Your task to perform on an android device: Search for razer nari on target, select the first entry, and add it to the cart. Image 0: 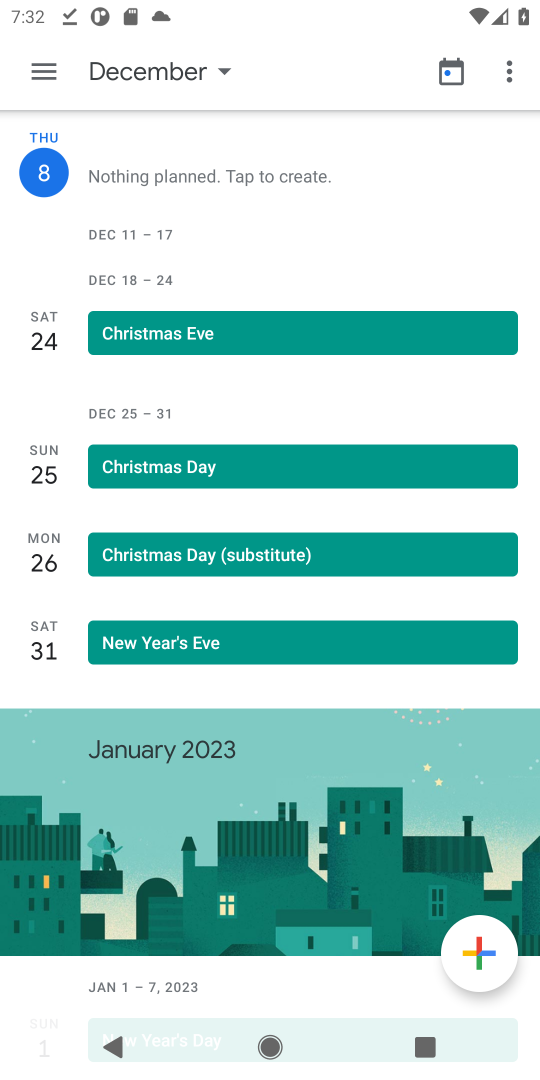
Step 0: press home button
Your task to perform on an android device: Search for razer nari on target, select the first entry, and add it to the cart. Image 1: 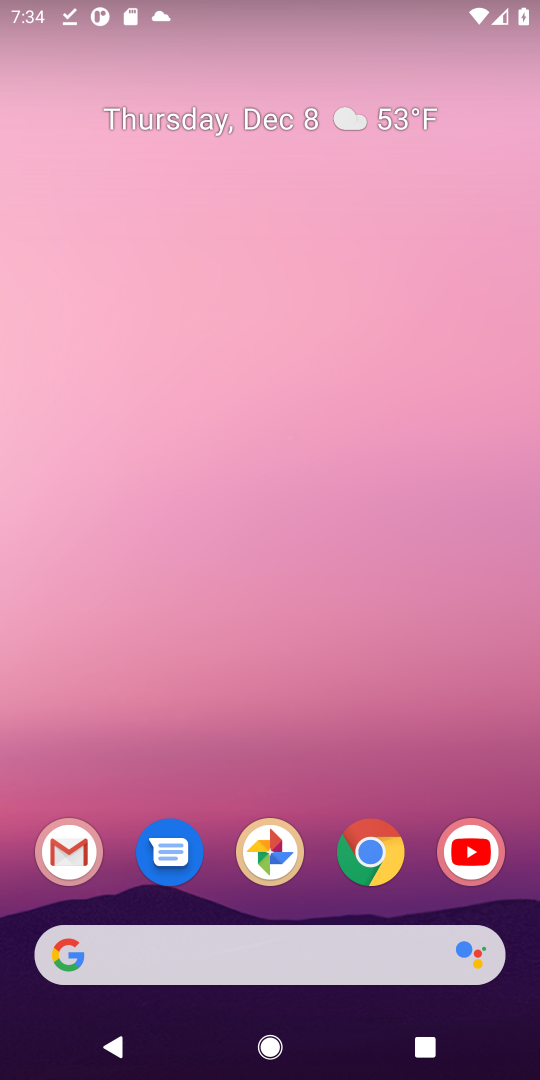
Step 1: click (295, 969)
Your task to perform on an android device: Search for razer nari on target, select the first entry, and add it to the cart. Image 2: 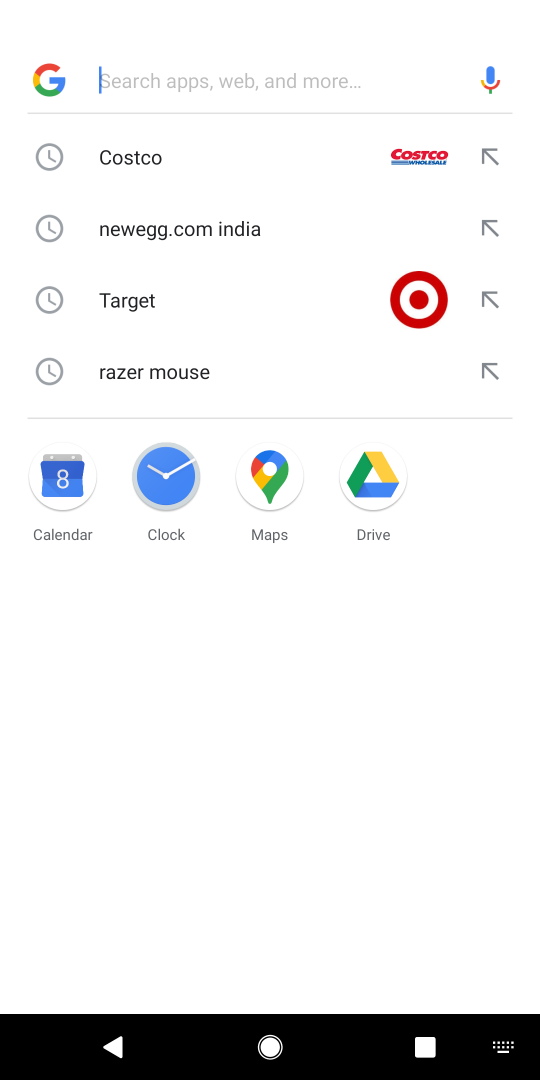
Step 2: type "target"
Your task to perform on an android device: Search for razer nari on target, select the first entry, and add it to the cart. Image 3: 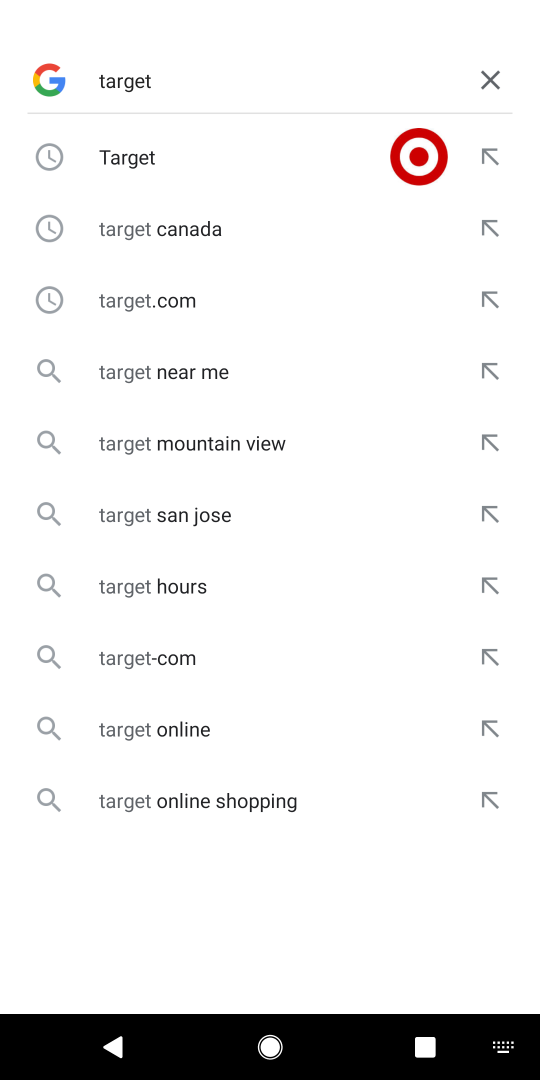
Step 3: click (168, 143)
Your task to perform on an android device: Search for razer nari on target, select the first entry, and add it to the cart. Image 4: 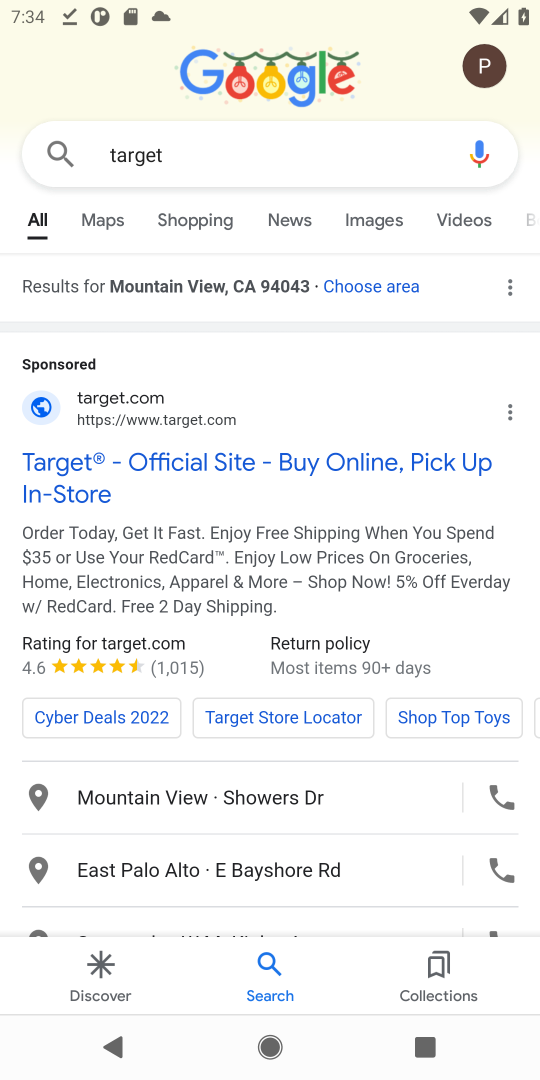
Step 4: click (121, 457)
Your task to perform on an android device: Search for razer nari on target, select the first entry, and add it to the cart. Image 5: 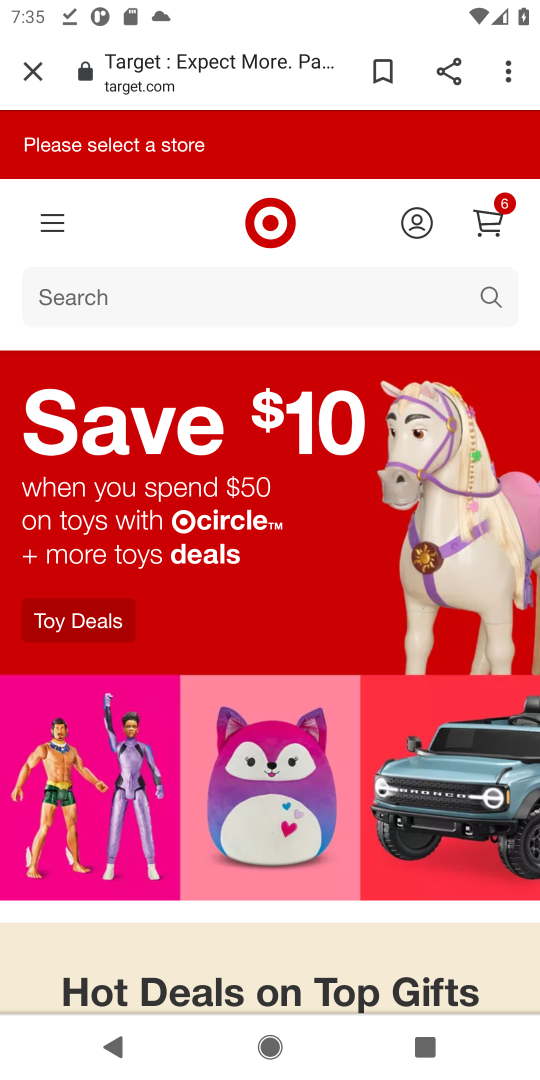
Step 5: task complete